Your task to perform on an android device: turn pop-ups on in chrome Image 0: 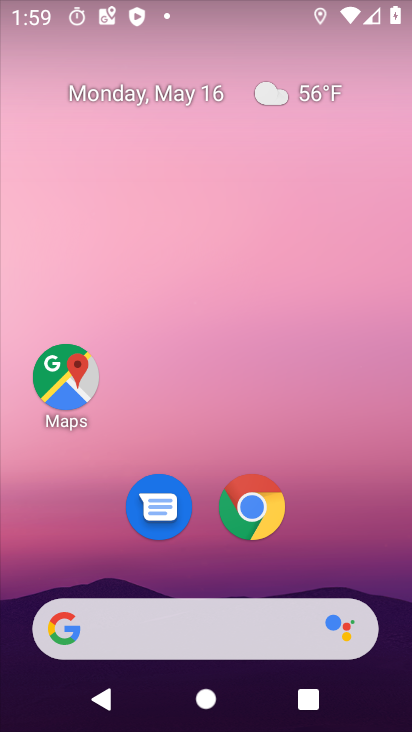
Step 0: click (253, 512)
Your task to perform on an android device: turn pop-ups on in chrome Image 1: 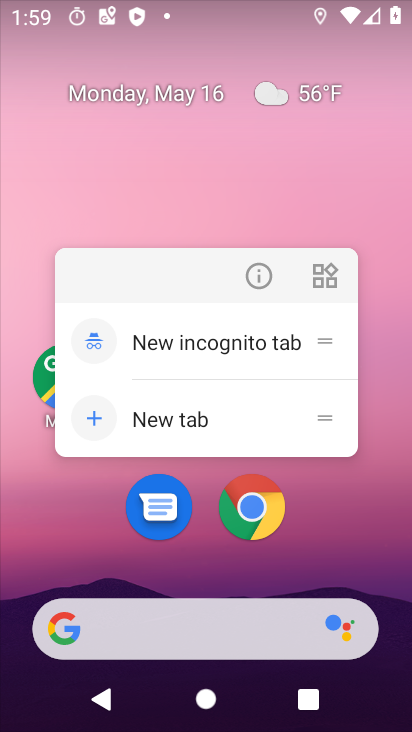
Step 1: click (257, 495)
Your task to perform on an android device: turn pop-ups on in chrome Image 2: 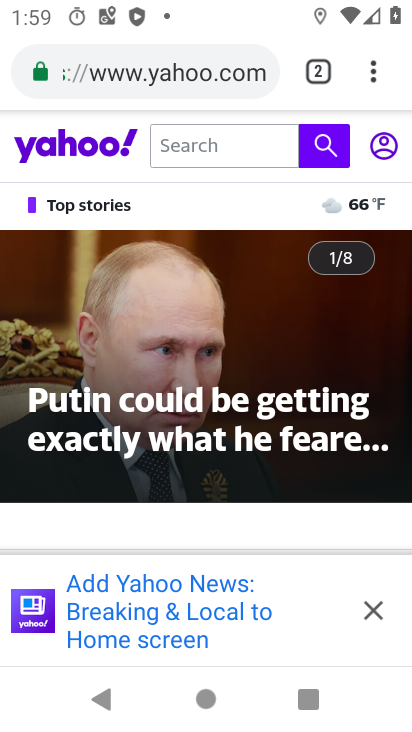
Step 2: click (367, 64)
Your task to perform on an android device: turn pop-ups on in chrome Image 3: 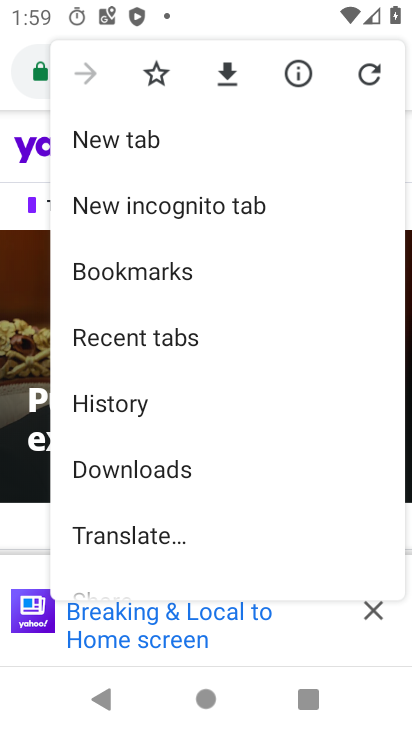
Step 3: drag from (188, 491) to (212, 79)
Your task to perform on an android device: turn pop-ups on in chrome Image 4: 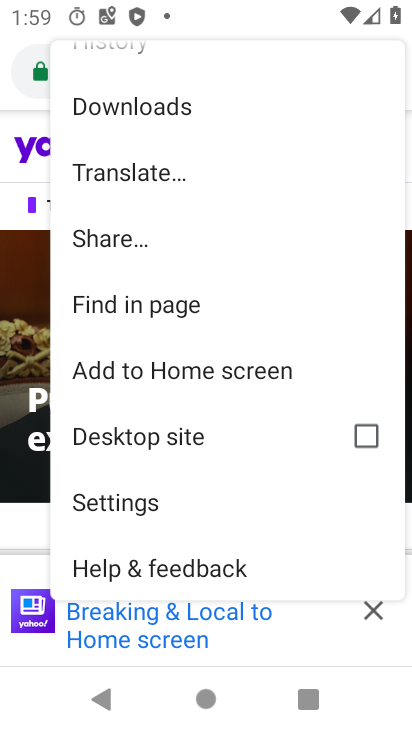
Step 4: click (148, 501)
Your task to perform on an android device: turn pop-ups on in chrome Image 5: 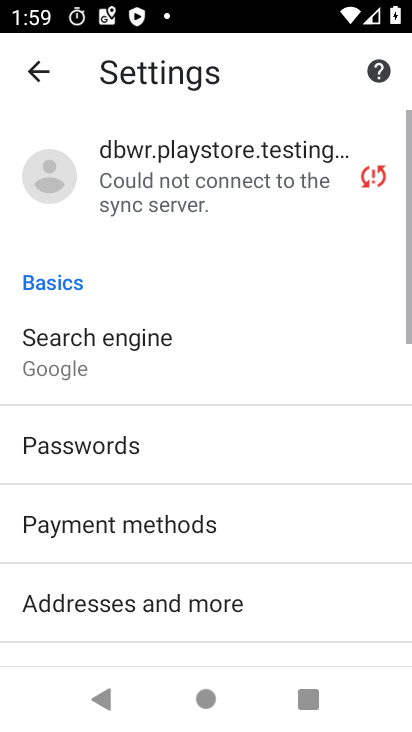
Step 5: drag from (267, 543) to (270, 24)
Your task to perform on an android device: turn pop-ups on in chrome Image 6: 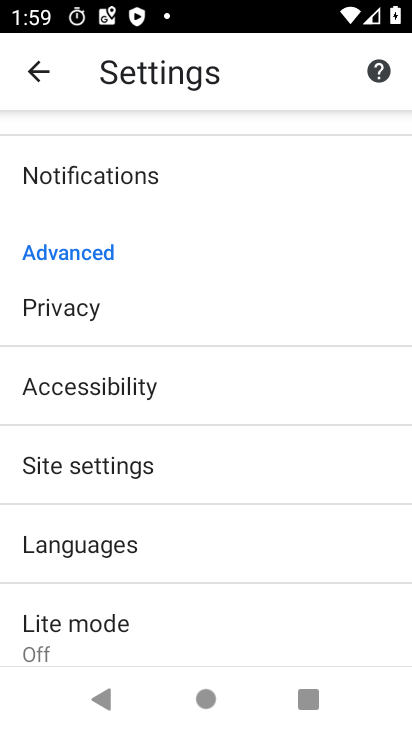
Step 6: drag from (138, 584) to (150, 240)
Your task to perform on an android device: turn pop-ups on in chrome Image 7: 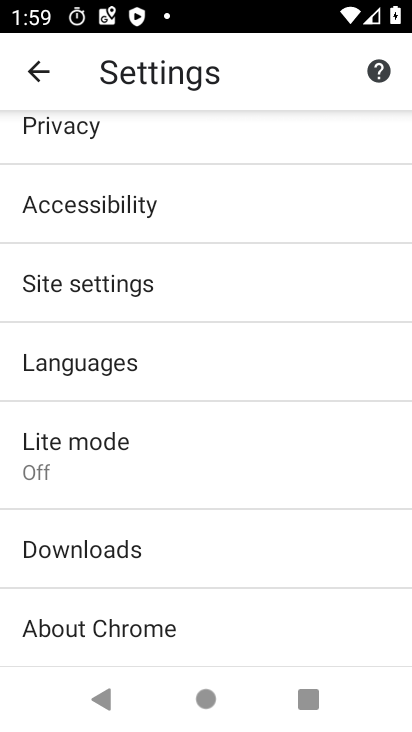
Step 7: click (125, 289)
Your task to perform on an android device: turn pop-ups on in chrome Image 8: 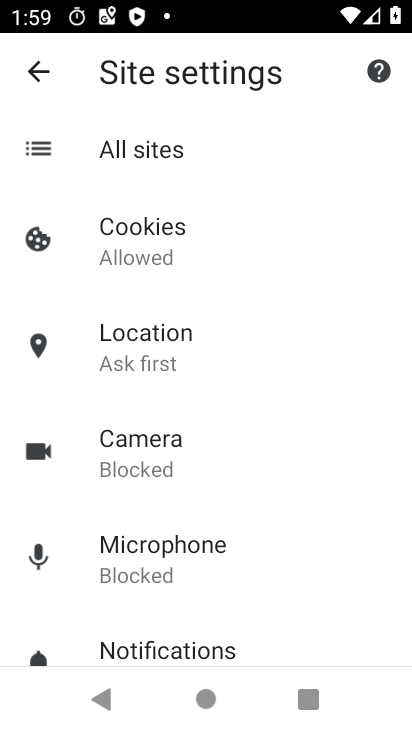
Step 8: drag from (246, 514) to (215, 102)
Your task to perform on an android device: turn pop-ups on in chrome Image 9: 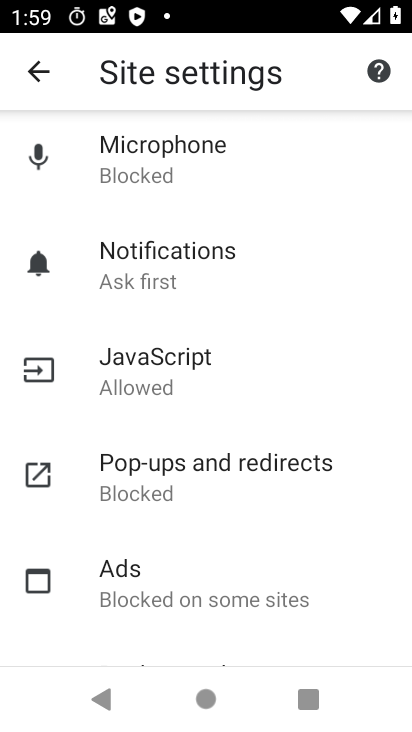
Step 9: click (136, 479)
Your task to perform on an android device: turn pop-ups on in chrome Image 10: 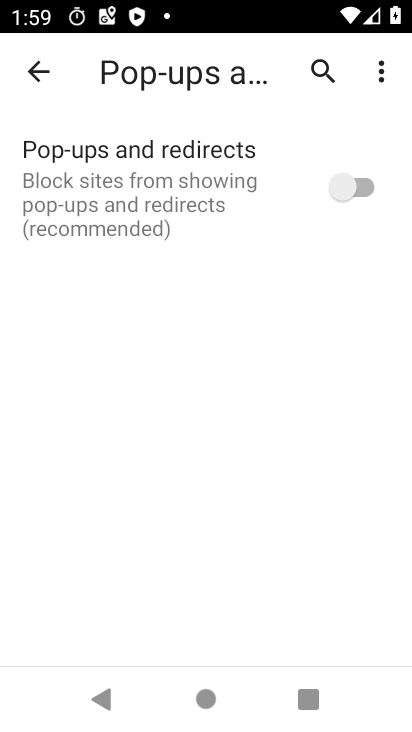
Step 10: click (358, 182)
Your task to perform on an android device: turn pop-ups on in chrome Image 11: 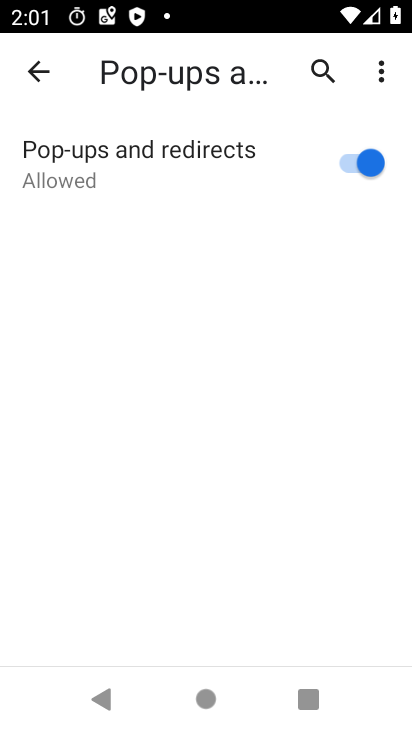
Step 11: task complete